Your task to perform on an android device: Go to settings Image 0: 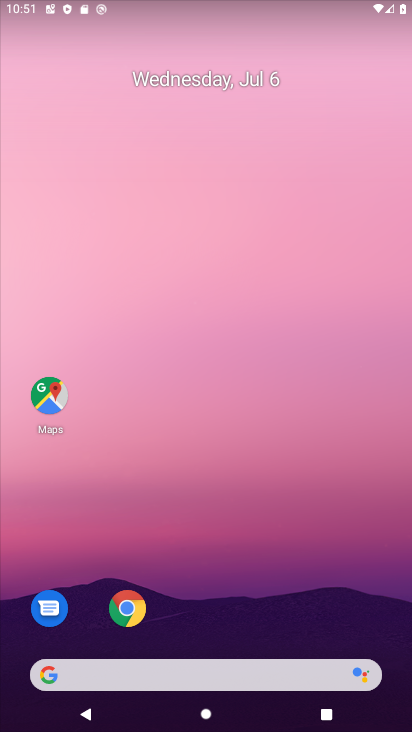
Step 0: drag from (157, 552) to (157, 234)
Your task to perform on an android device: Go to settings Image 1: 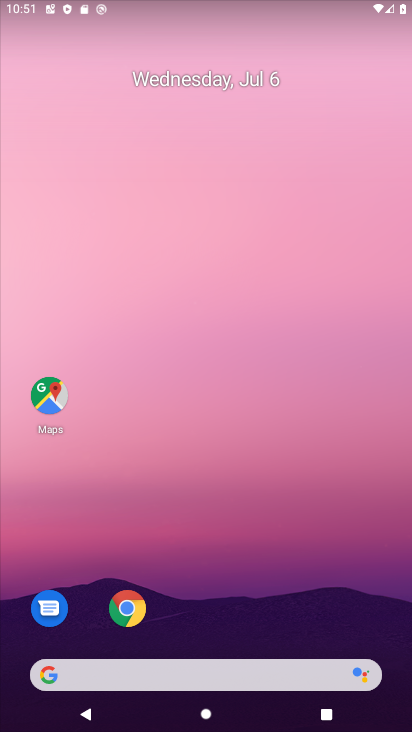
Step 1: drag from (211, 639) to (220, 148)
Your task to perform on an android device: Go to settings Image 2: 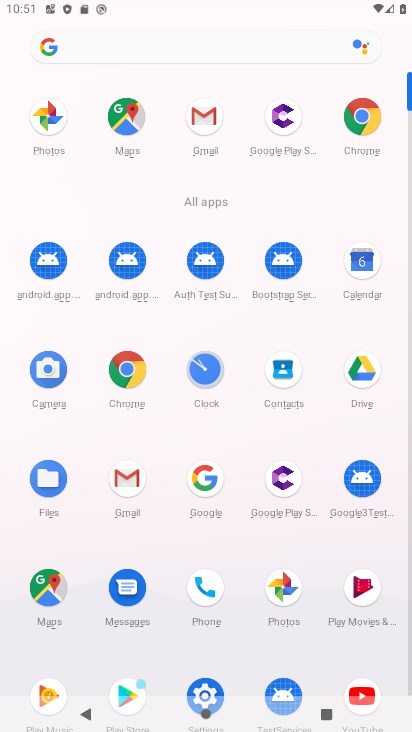
Step 2: click (207, 683)
Your task to perform on an android device: Go to settings Image 3: 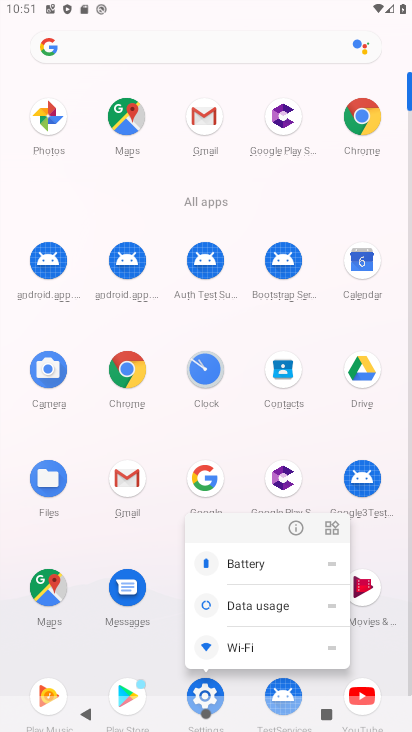
Step 3: click (207, 690)
Your task to perform on an android device: Go to settings Image 4: 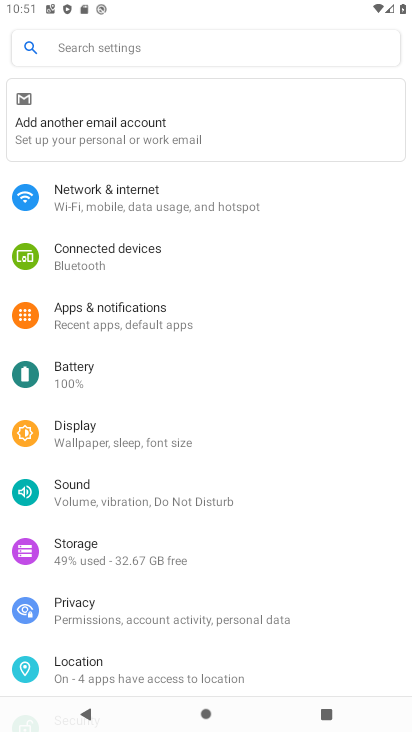
Step 4: task complete